Your task to perform on an android device: Empty the shopping cart on amazon. Image 0: 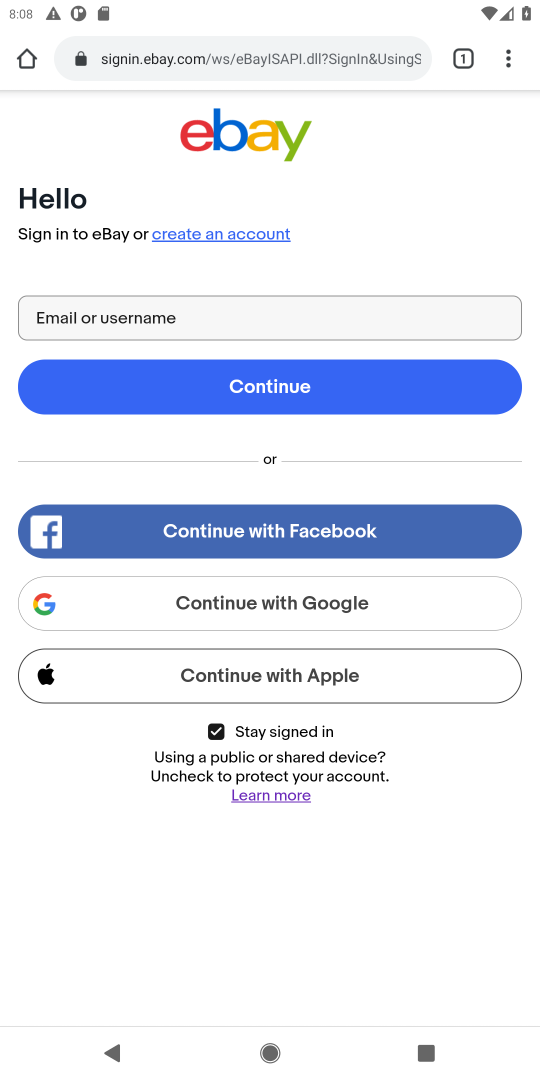
Step 0: click (192, 64)
Your task to perform on an android device: Empty the shopping cart on amazon. Image 1: 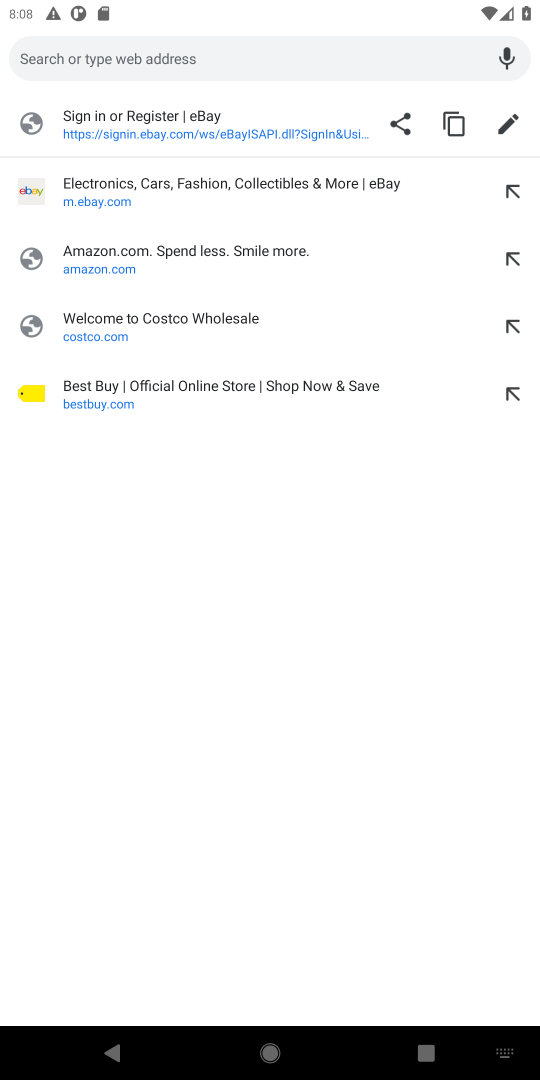
Step 1: click (68, 258)
Your task to perform on an android device: Empty the shopping cart on amazon. Image 2: 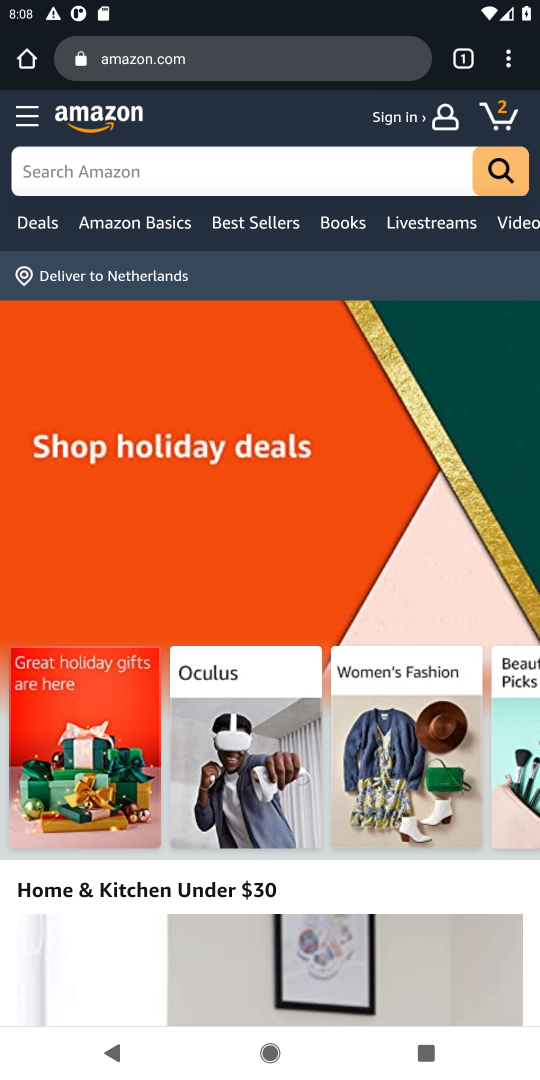
Step 2: click (497, 118)
Your task to perform on an android device: Empty the shopping cart on amazon. Image 3: 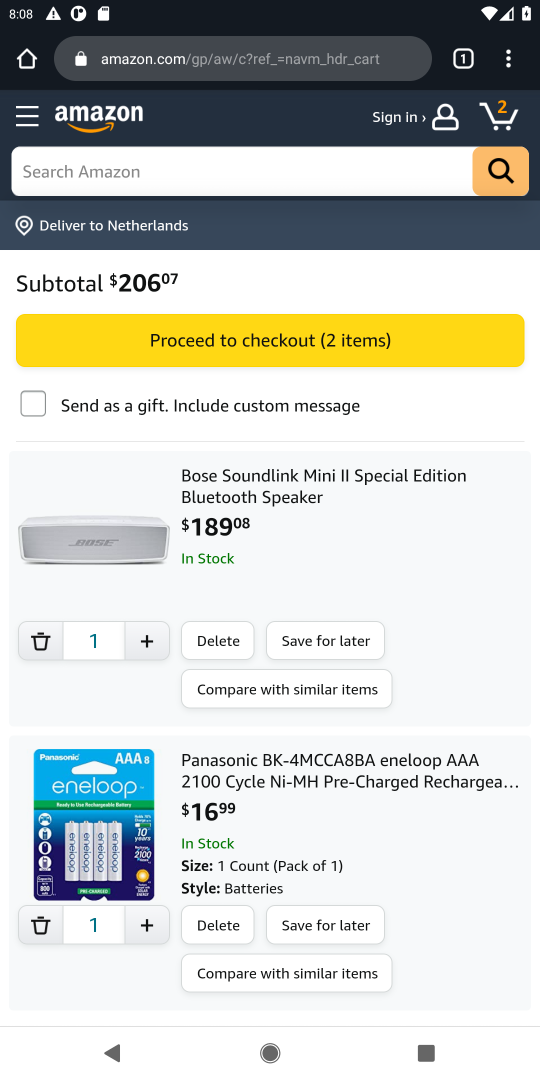
Step 3: click (235, 637)
Your task to perform on an android device: Empty the shopping cart on amazon. Image 4: 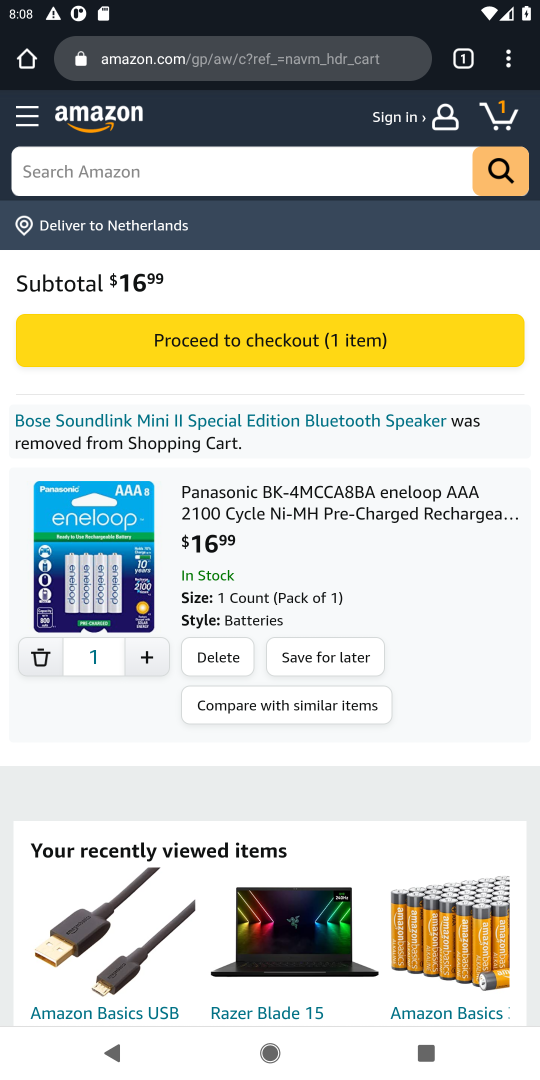
Step 4: click (223, 658)
Your task to perform on an android device: Empty the shopping cart on amazon. Image 5: 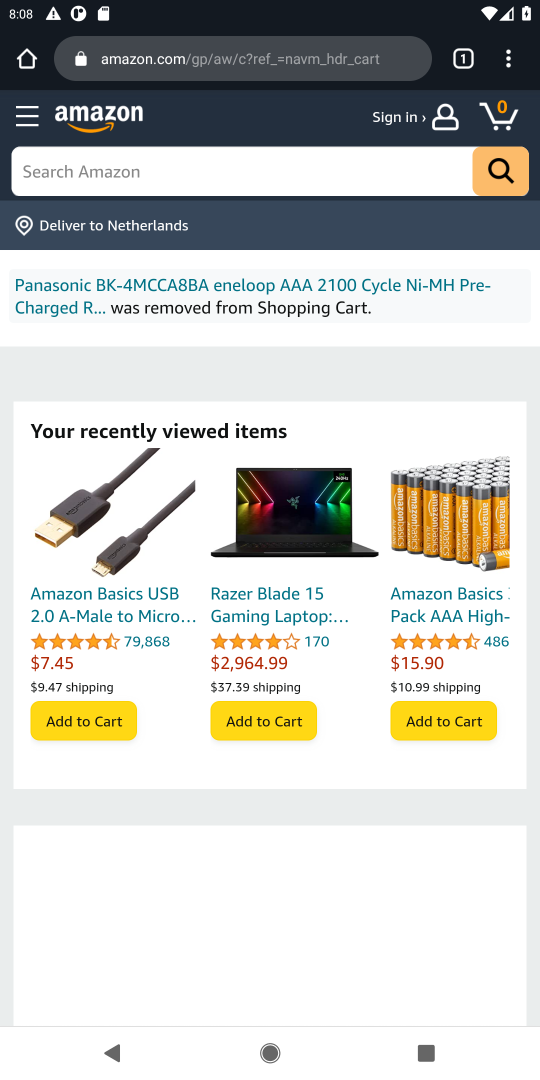
Step 5: task complete